Your task to perform on an android device: Search for seafood restaurants on Google Maps Image 0: 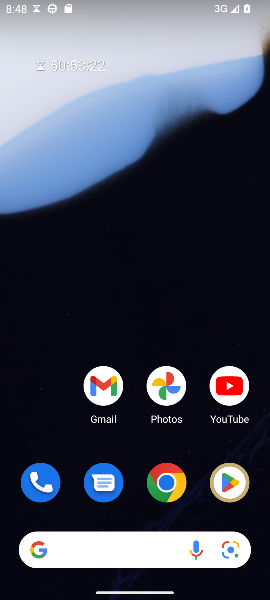
Step 0: drag from (48, 476) to (7, 263)
Your task to perform on an android device: Search for seafood restaurants on Google Maps Image 1: 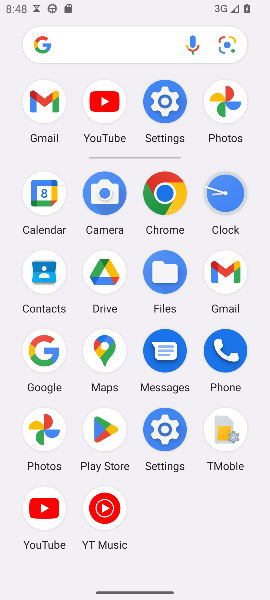
Step 1: click (100, 355)
Your task to perform on an android device: Search for seafood restaurants on Google Maps Image 2: 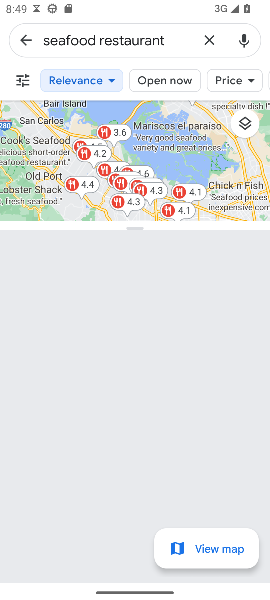
Step 2: task complete